Your task to perform on an android device: Open Chrome and go to settings Image 0: 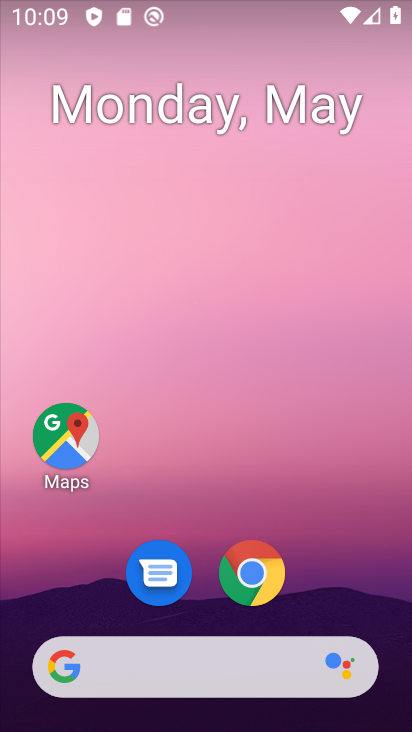
Step 0: click (267, 582)
Your task to perform on an android device: Open Chrome and go to settings Image 1: 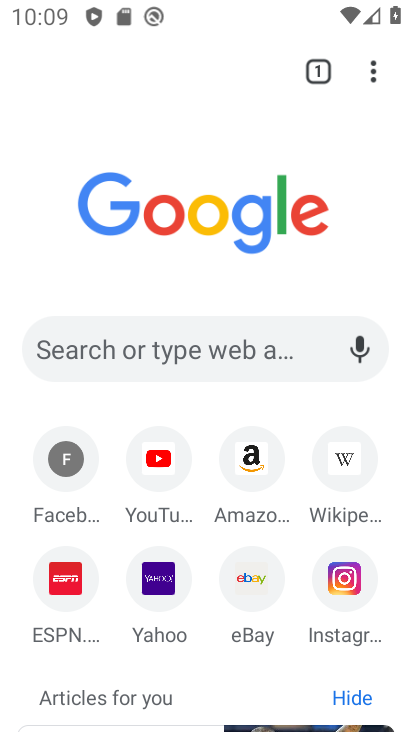
Step 1: click (366, 73)
Your task to perform on an android device: Open Chrome and go to settings Image 2: 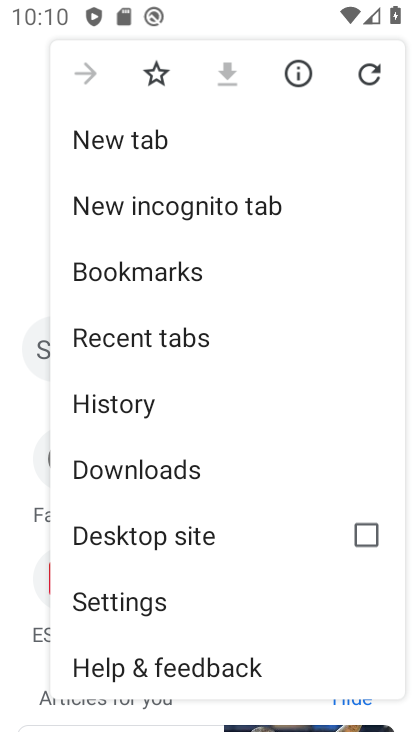
Step 2: click (180, 602)
Your task to perform on an android device: Open Chrome and go to settings Image 3: 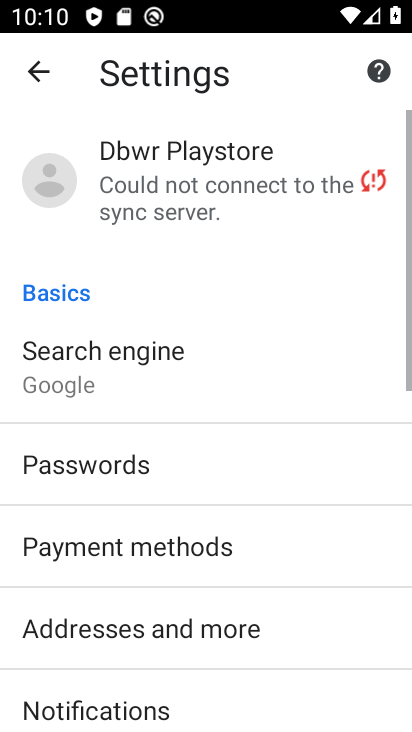
Step 3: task complete